Your task to perform on an android device: turn on the 12-hour format for clock Image 0: 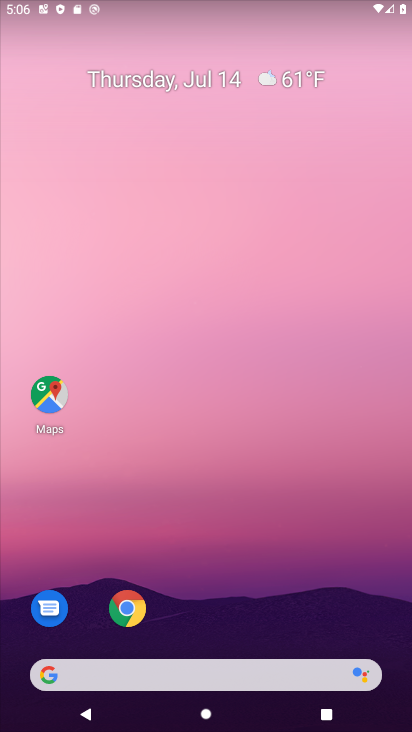
Step 0: drag from (299, 583) to (231, 56)
Your task to perform on an android device: turn on the 12-hour format for clock Image 1: 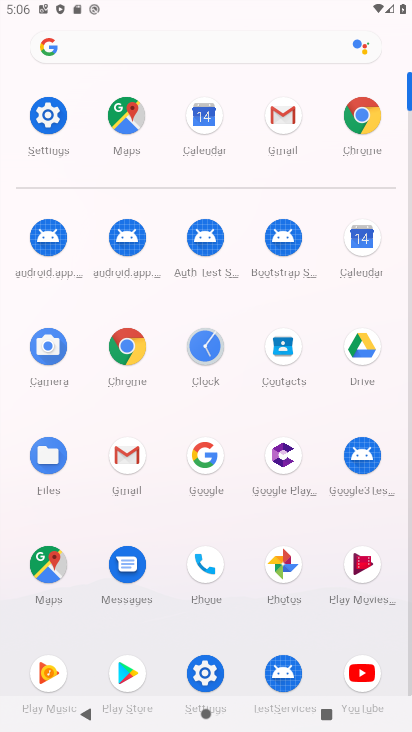
Step 1: click (199, 342)
Your task to perform on an android device: turn on the 12-hour format for clock Image 2: 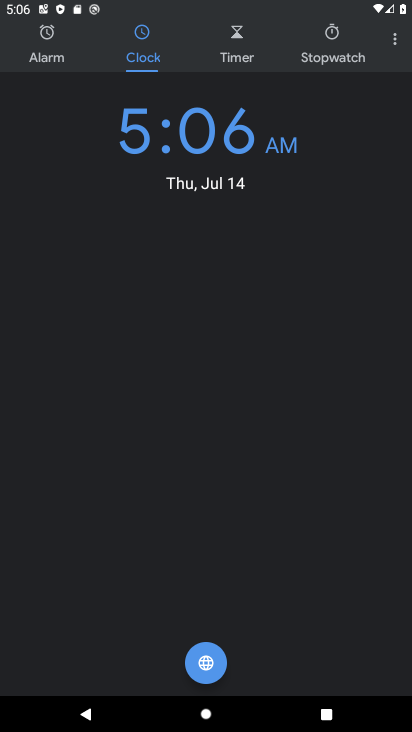
Step 2: click (391, 33)
Your task to perform on an android device: turn on the 12-hour format for clock Image 3: 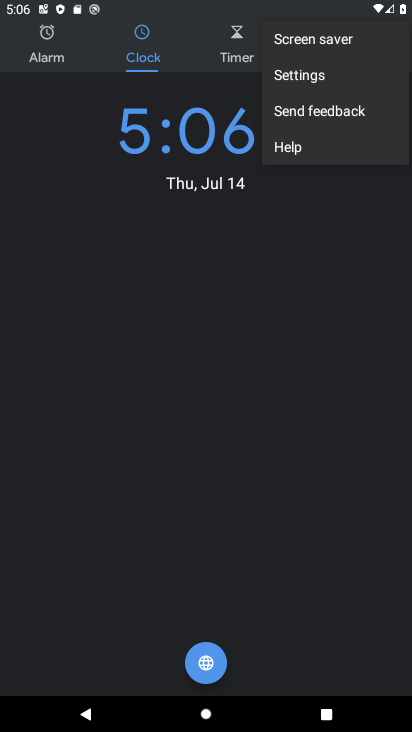
Step 3: click (303, 68)
Your task to perform on an android device: turn on the 12-hour format for clock Image 4: 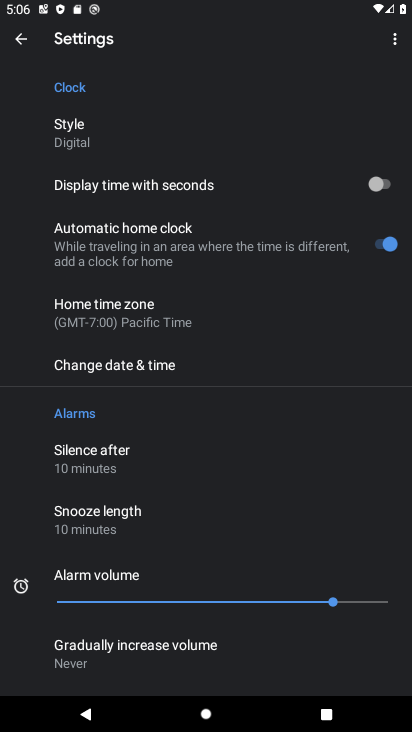
Step 4: click (128, 369)
Your task to perform on an android device: turn on the 12-hour format for clock Image 5: 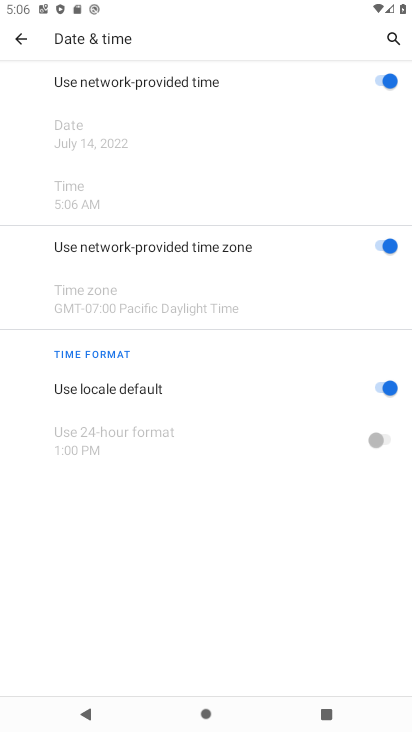
Step 5: task complete